Your task to perform on an android device: turn off airplane mode Image 0: 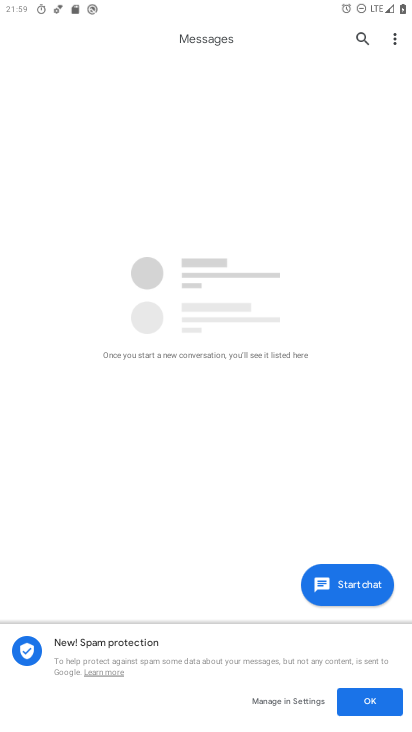
Step 0: drag from (230, 593) to (275, 166)
Your task to perform on an android device: turn off airplane mode Image 1: 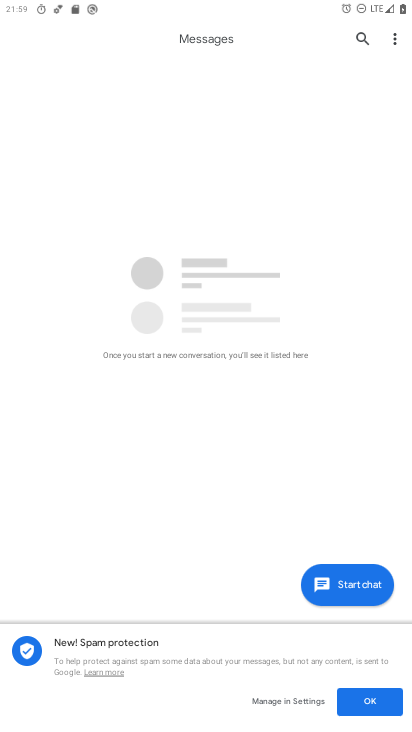
Step 1: press home button
Your task to perform on an android device: turn off airplane mode Image 2: 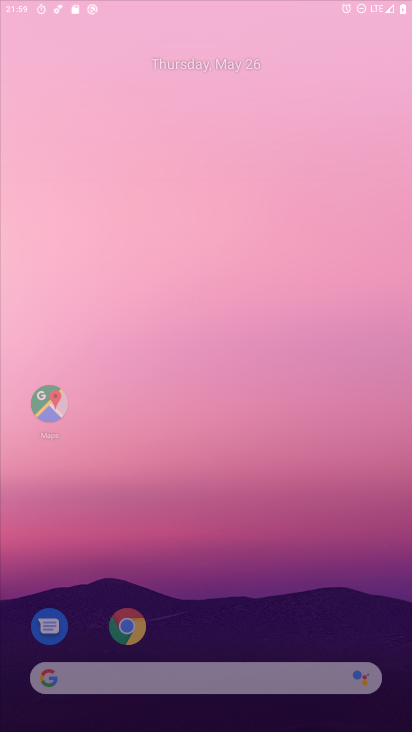
Step 2: drag from (213, 601) to (305, 9)
Your task to perform on an android device: turn off airplane mode Image 3: 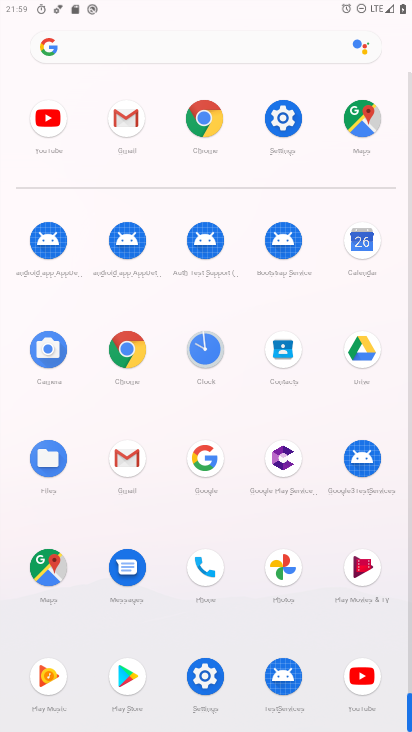
Step 3: click (283, 113)
Your task to perform on an android device: turn off airplane mode Image 4: 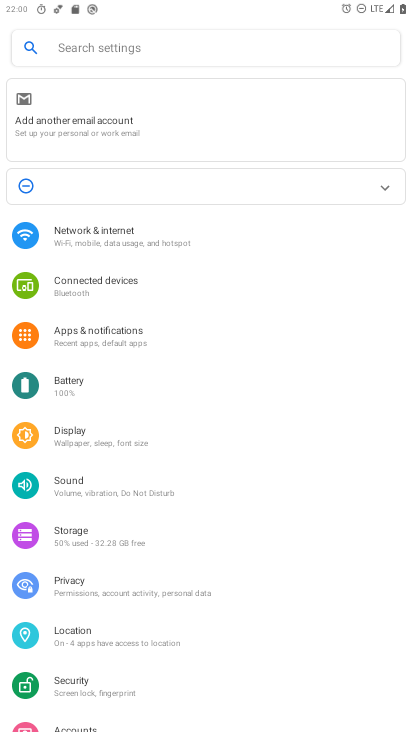
Step 4: drag from (182, 601) to (227, 289)
Your task to perform on an android device: turn off airplane mode Image 5: 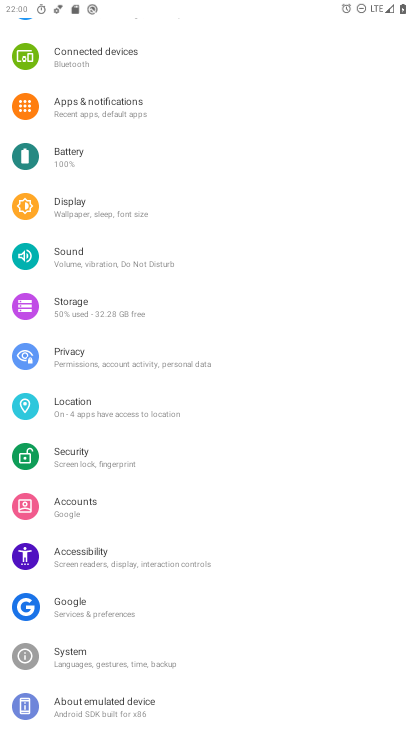
Step 5: drag from (175, 67) to (226, 507)
Your task to perform on an android device: turn off airplane mode Image 6: 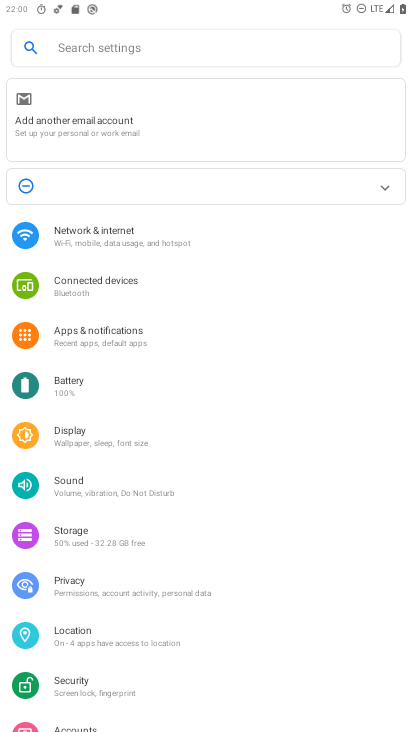
Step 6: click (196, 225)
Your task to perform on an android device: turn off airplane mode Image 7: 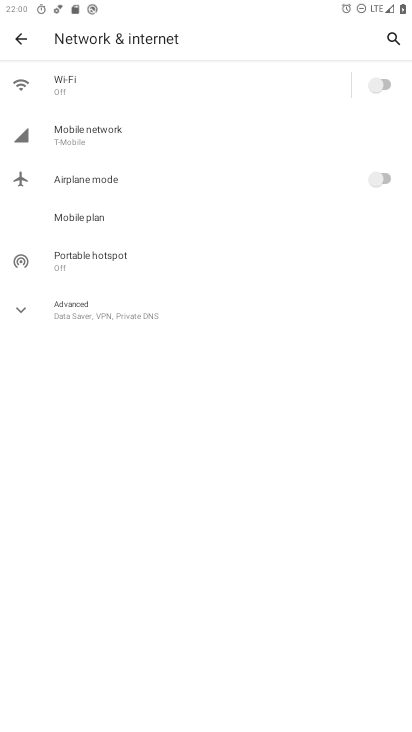
Step 7: task complete